Your task to perform on an android device: Open internet settings Image 0: 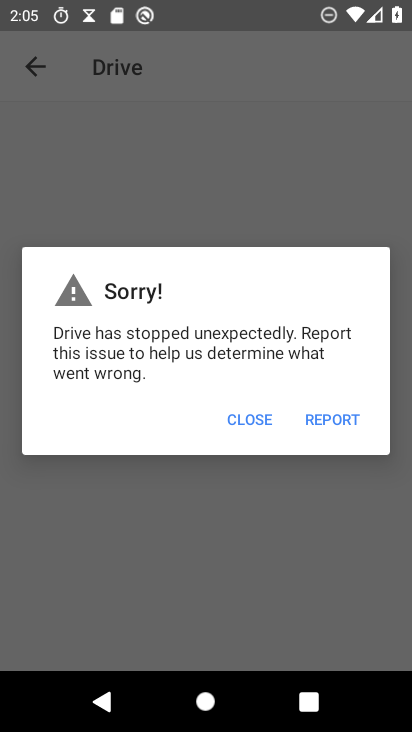
Step 0: press home button
Your task to perform on an android device: Open internet settings Image 1: 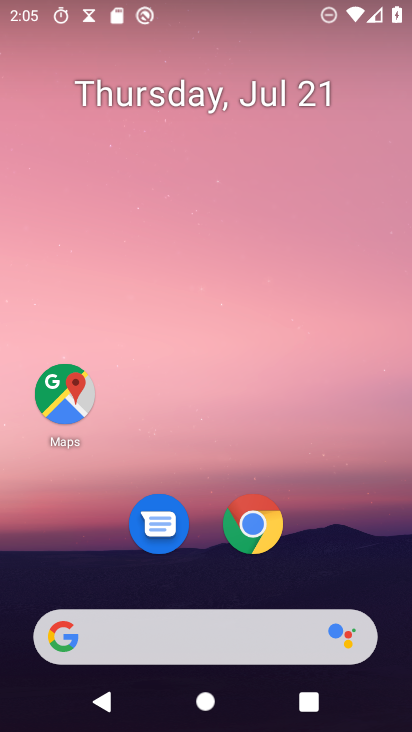
Step 1: drag from (224, 643) to (253, 4)
Your task to perform on an android device: Open internet settings Image 2: 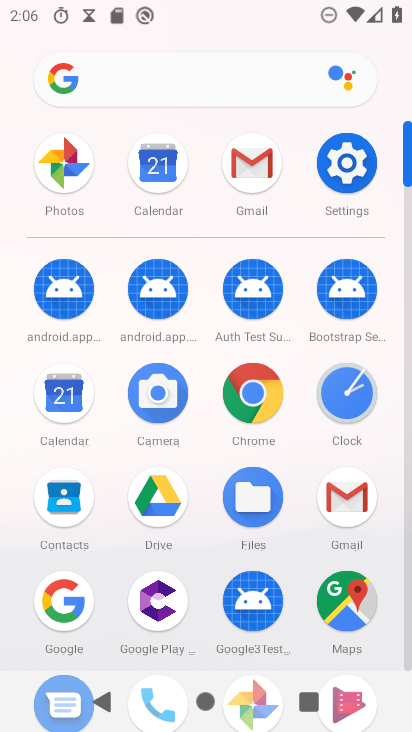
Step 2: click (330, 166)
Your task to perform on an android device: Open internet settings Image 3: 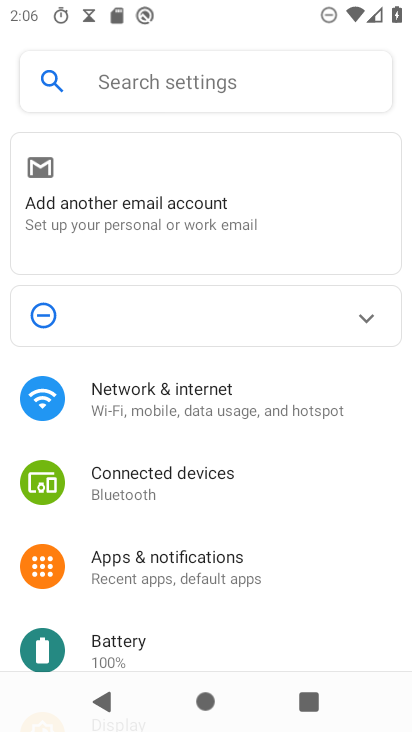
Step 3: click (185, 404)
Your task to perform on an android device: Open internet settings Image 4: 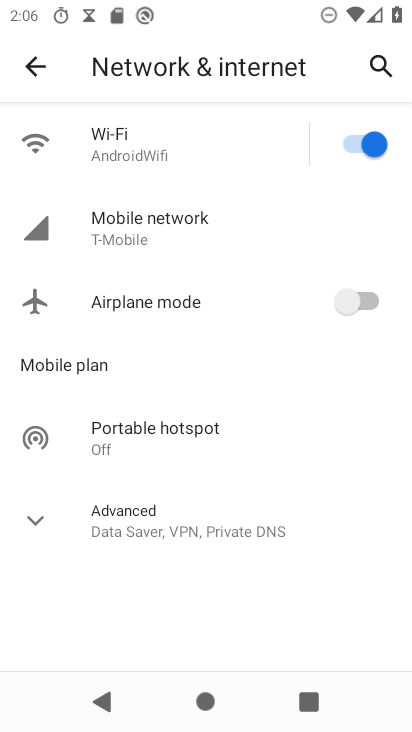
Step 4: task complete